Your task to perform on an android device: toggle sleep mode Image 0: 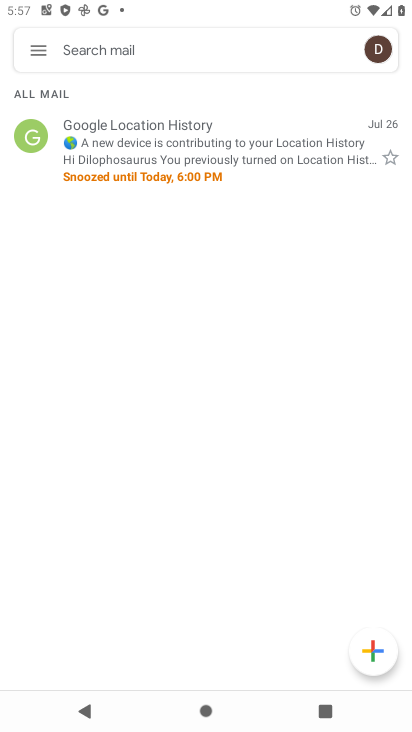
Step 0: press home button
Your task to perform on an android device: toggle sleep mode Image 1: 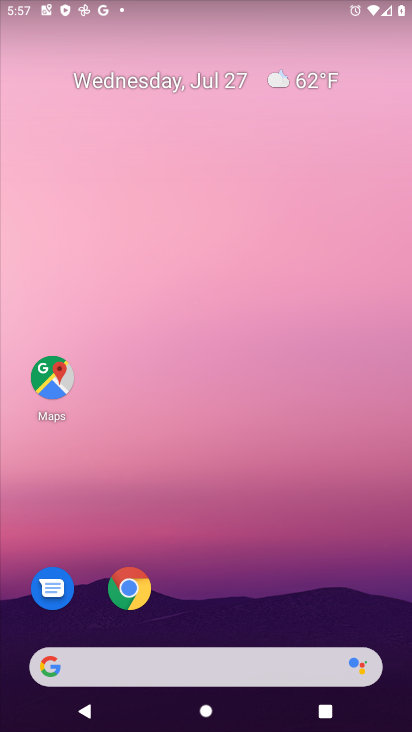
Step 1: drag from (209, 405) to (231, 41)
Your task to perform on an android device: toggle sleep mode Image 2: 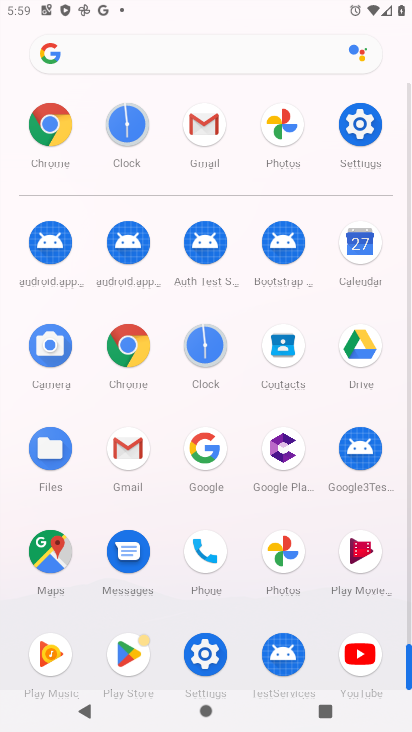
Step 2: click (361, 153)
Your task to perform on an android device: toggle sleep mode Image 3: 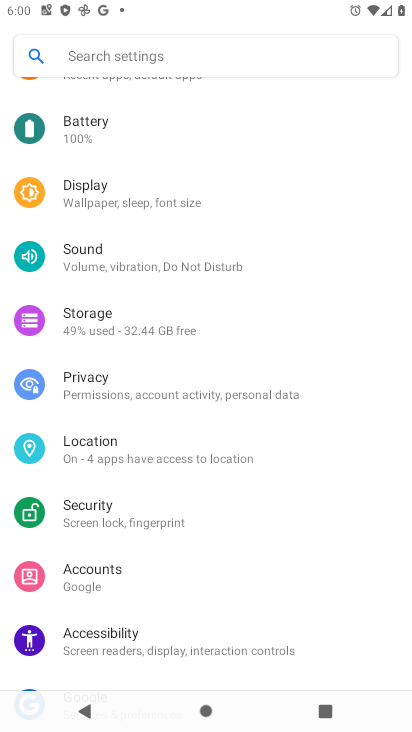
Step 3: task complete